Your task to perform on an android device: Open calendar and show me the third week of next month Image 0: 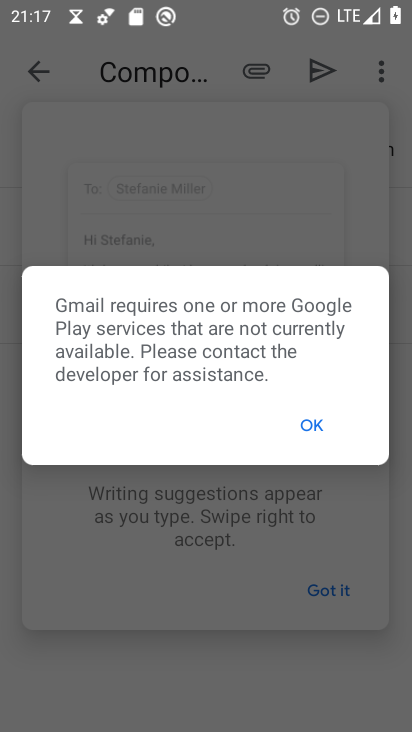
Step 0: press home button
Your task to perform on an android device: Open calendar and show me the third week of next month Image 1: 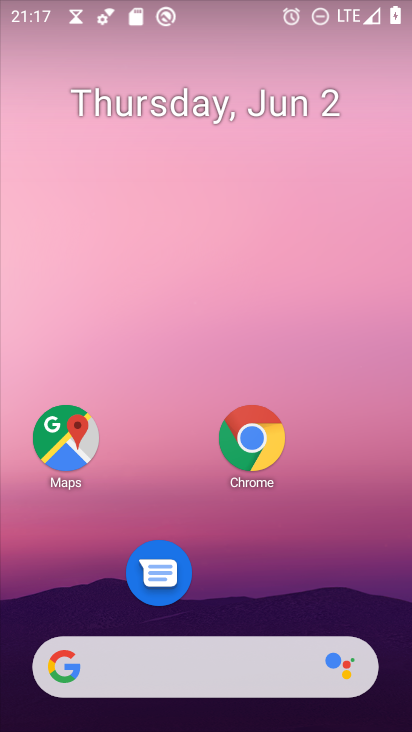
Step 1: drag from (164, 660) to (275, 240)
Your task to perform on an android device: Open calendar and show me the third week of next month Image 2: 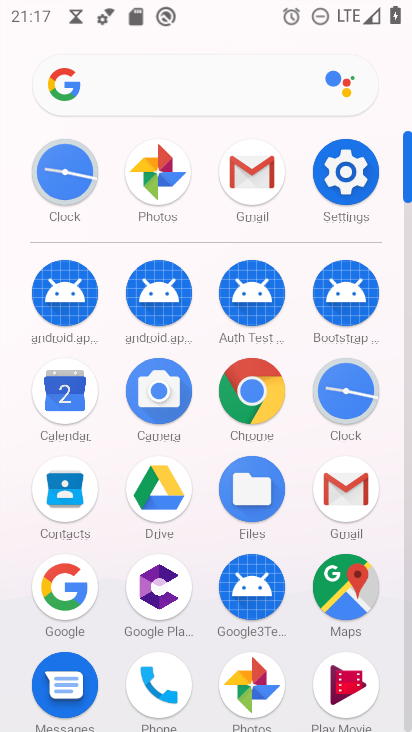
Step 2: click (63, 398)
Your task to perform on an android device: Open calendar and show me the third week of next month Image 3: 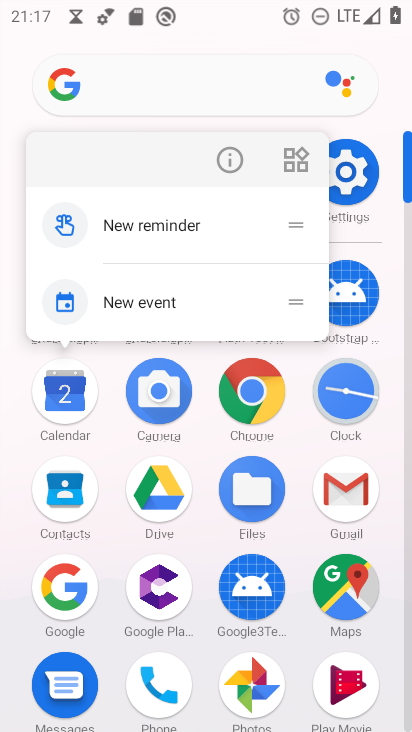
Step 3: click (64, 408)
Your task to perform on an android device: Open calendar and show me the third week of next month Image 4: 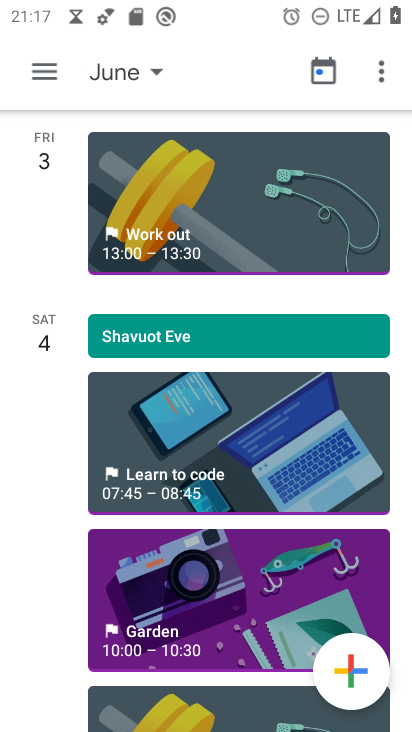
Step 4: click (121, 83)
Your task to perform on an android device: Open calendar and show me the third week of next month Image 5: 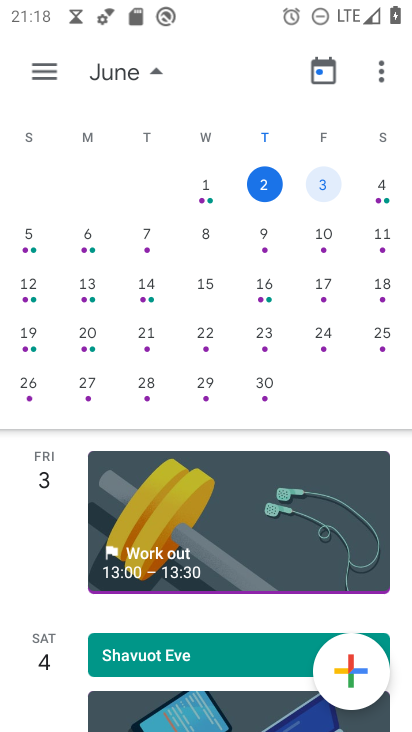
Step 5: drag from (353, 311) to (52, 321)
Your task to perform on an android device: Open calendar and show me the third week of next month Image 6: 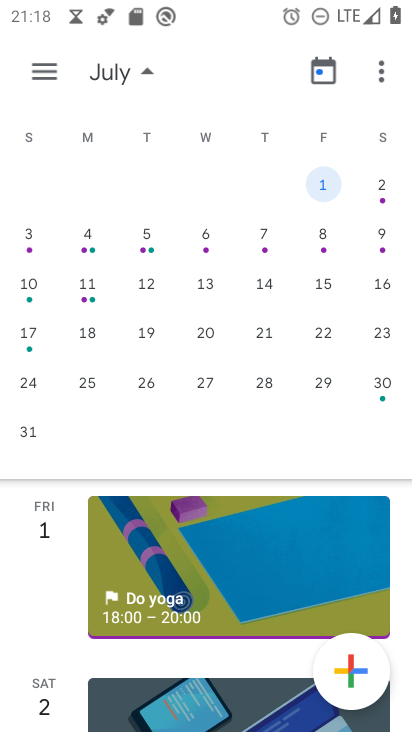
Step 6: click (32, 337)
Your task to perform on an android device: Open calendar and show me the third week of next month Image 7: 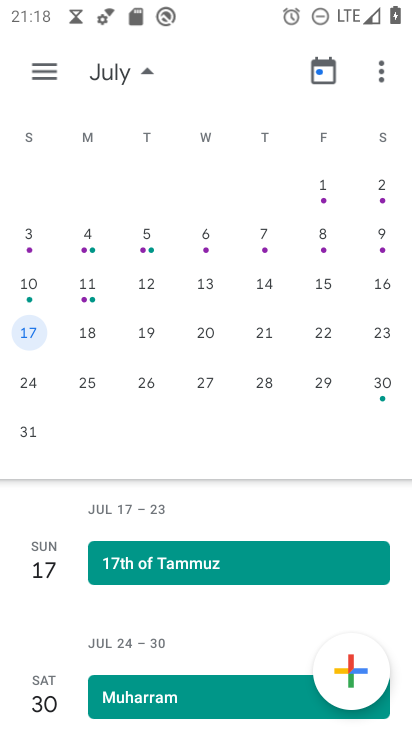
Step 7: click (40, 69)
Your task to perform on an android device: Open calendar and show me the third week of next month Image 8: 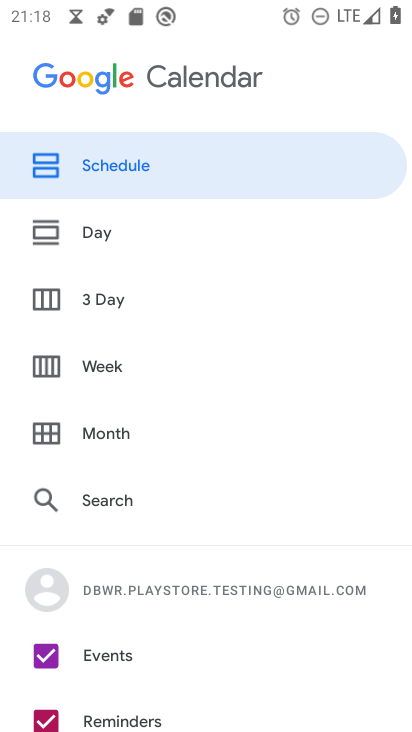
Step 8: click (106, 369)
Your task to perform on an android device: Open calendar and show me the third week of next month Image 9: 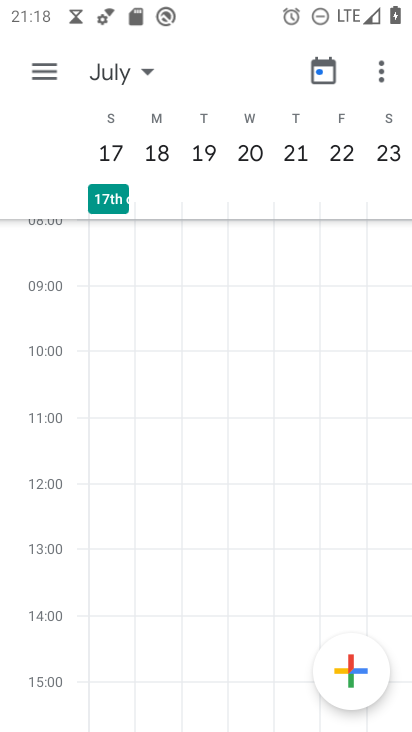
Step 9: task complete